Your task to perform on an android device: open a new tab in the chrome app Image 0: 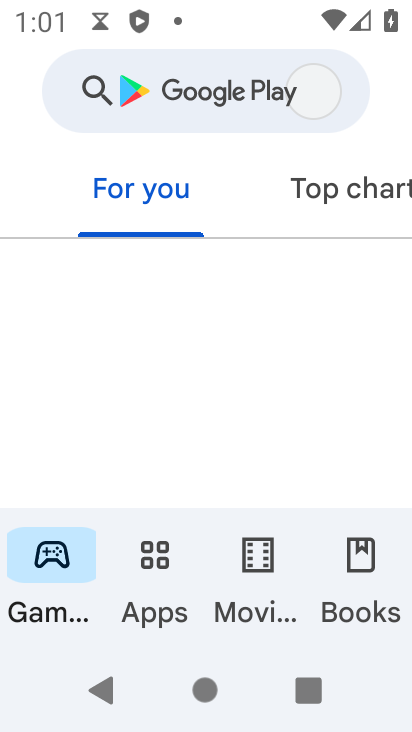
Step 0: drag from (338, 697) to (279, 183)
Your task to perform on an android device: open a new tab in the chrome app Image 1: 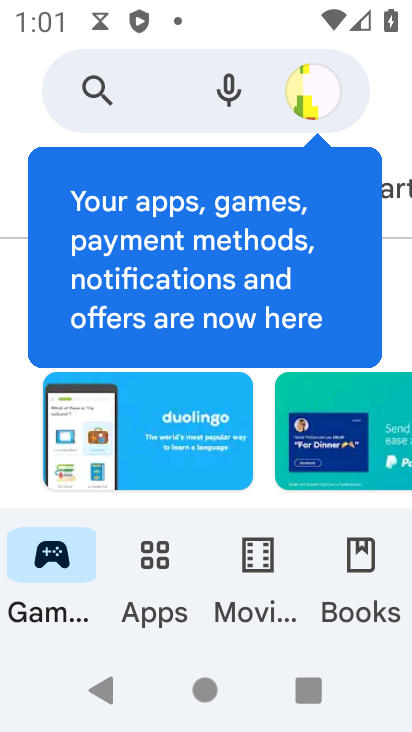
Step 1: press back button
Your task to perform on an android device: open a new tab in the chrome app Image 2: 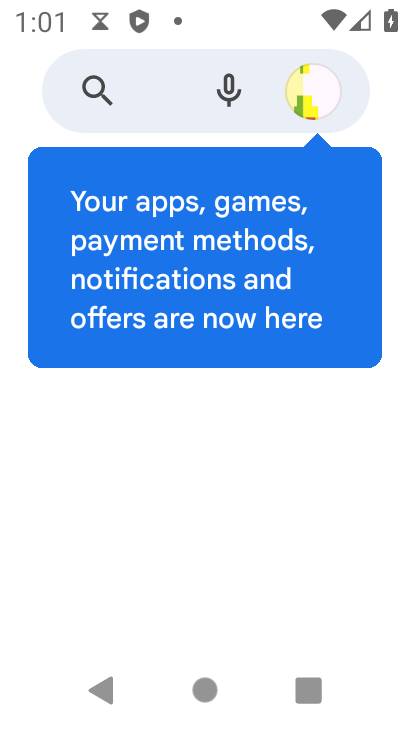
Step 2: press back button
Your task to perform on an android device: open a new tab in the chrome app Image 3: 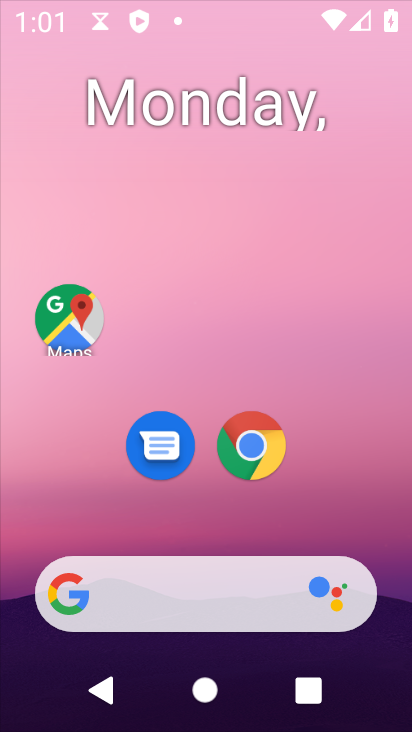
Step 3: press back button
Your task to perform on an android device: open a new tab in the chrome app Image 4: 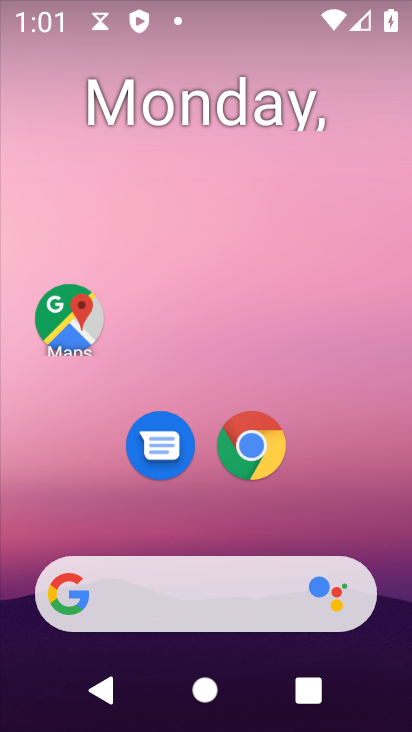
Step 4: drag from (366, 597) to (265, 142)
Your task to perform on an android device: open a new tab in the chrome app Image 5: 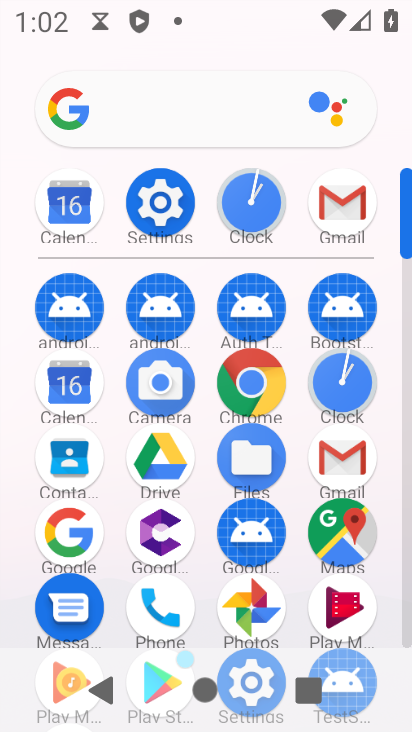
Step 5: click (255, 362)
Your task to perform on an android device: open a new tab in the chrome app Image 6: 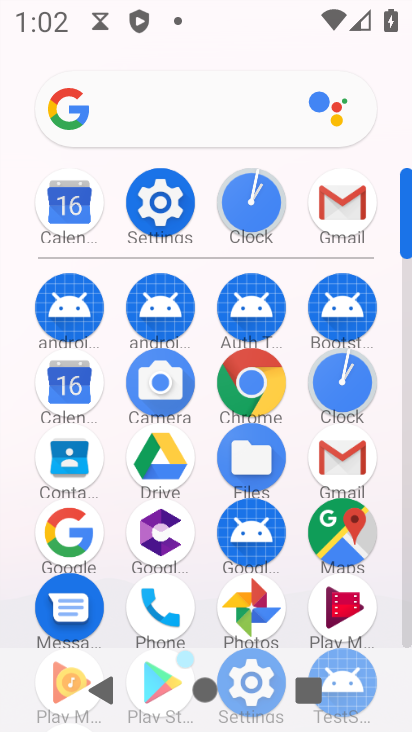
Step 6: click (239, 389)
Your task to perform on an android device: open a new tab in the chrome app Image 7: 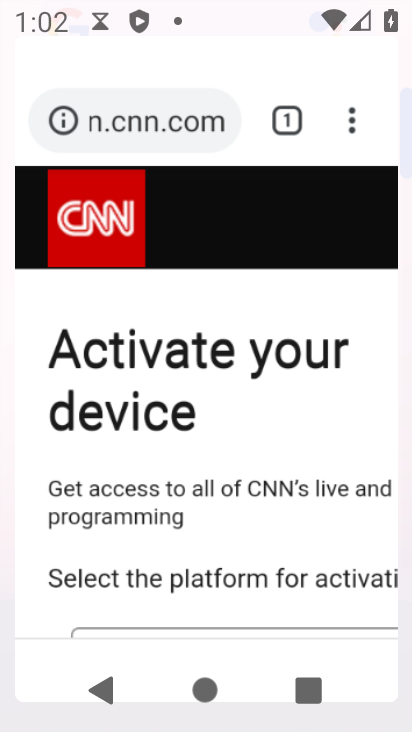
Step 7: click (238, 393)
Your task to perform on an android device: open a new tab in the chrome app Image 8: 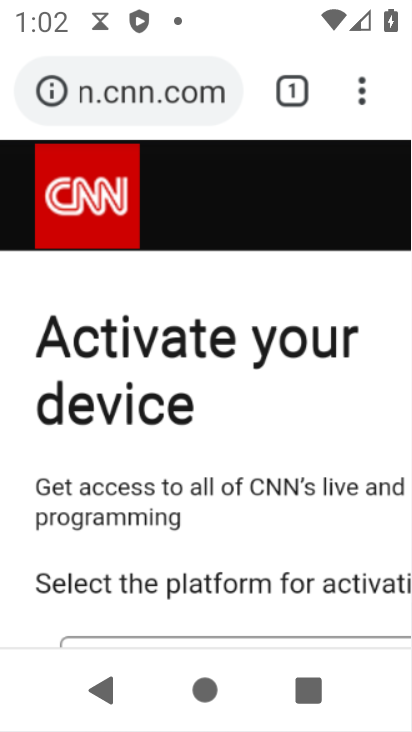
Step 8: click (238, 393)
Your task to perform on an android device: open a new tab in the chrome app Image 9: 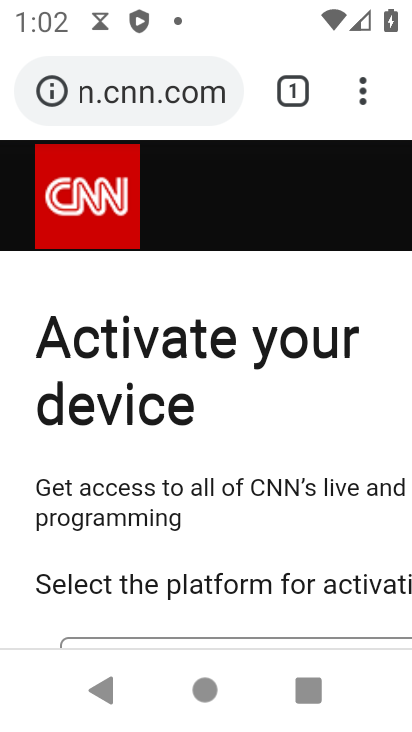
Step 9: click (356, 83)
Your task to perform on an android device: open a new tab in the chrome app Image 10: 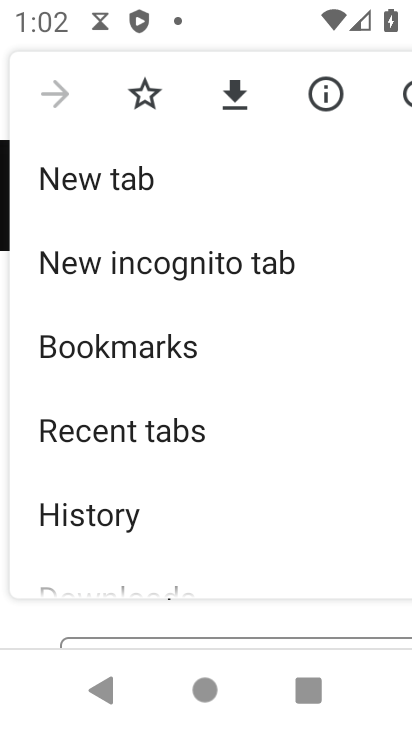
Step 10: click (82, 178)
Your task to perform on an android device: open a new tab in the chrome app Image 11: 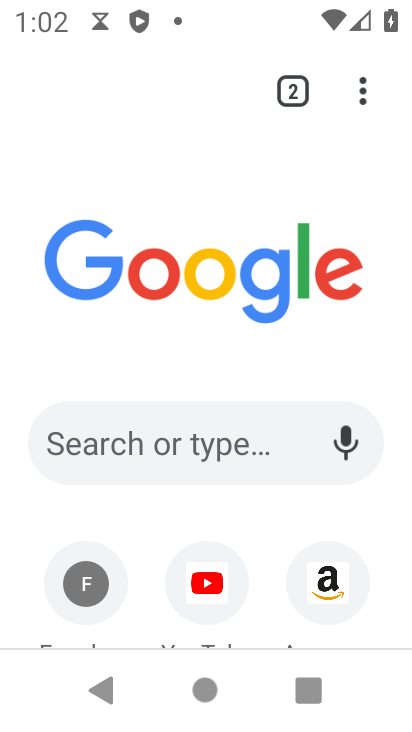
Step 11: task complete